Your task to perform on an android device: open a bookmark in the chrome app Image 0: 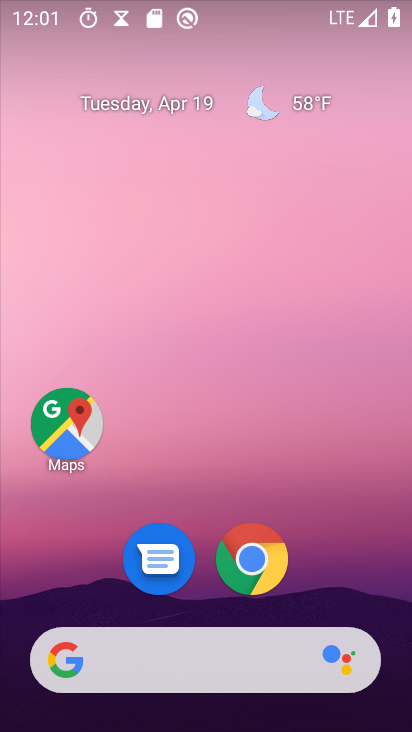
Step 0: click (257, 560)
Your task to perform on an android device: open a bookmark in the chrome app Image 1: 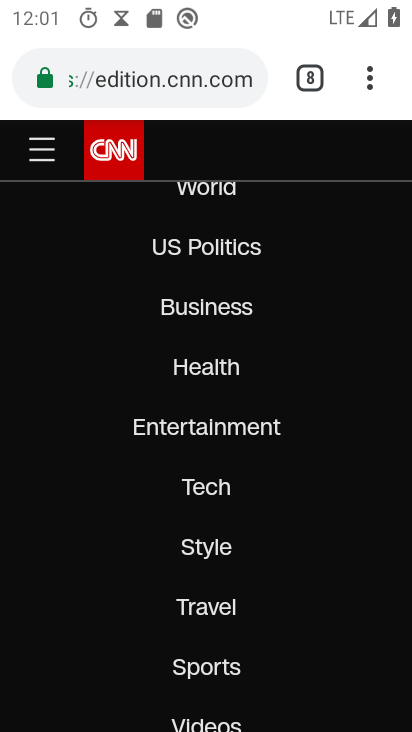
Step 1: click (367, 81)
Your task to perform on an android device: open a bookmark in the chrome app Image 2: 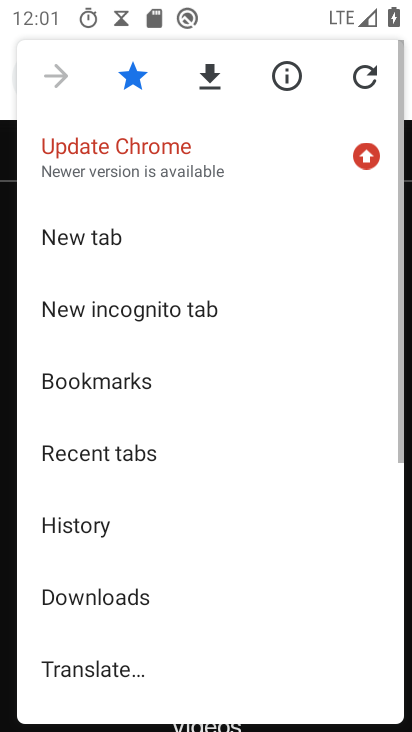
Step 2: drag from (203, 624) to (201, 398)
Your task to perform on an android device: open a bookmark in the chrome app Image 3: 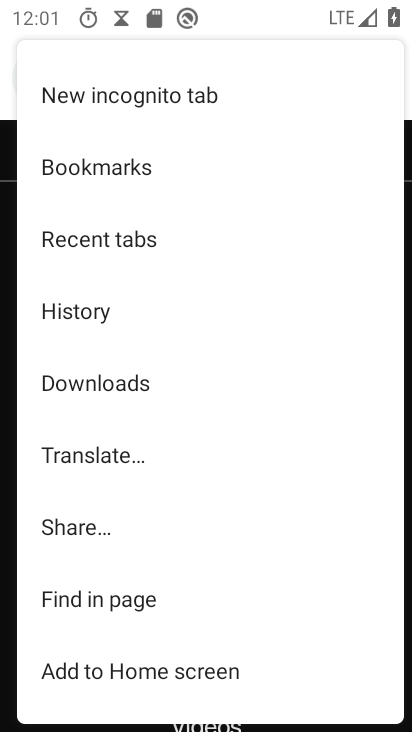
Step 3: click (105, 172)
Your task to perform on an android device: open a bookmark in the chrome app Image 4: 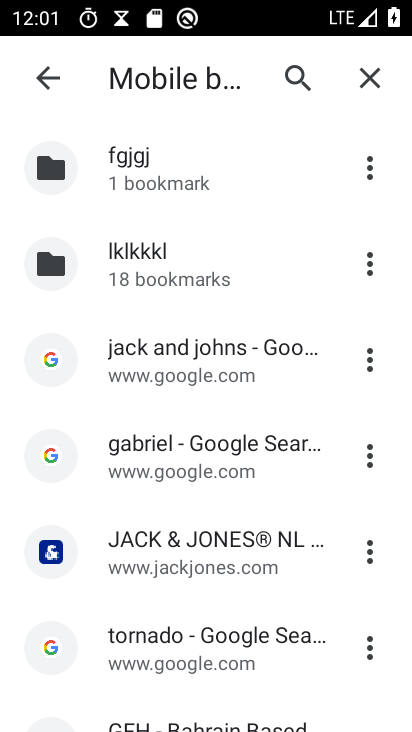
Step 4: task complete